Your task to perform on an android device: Open settings Image 0: 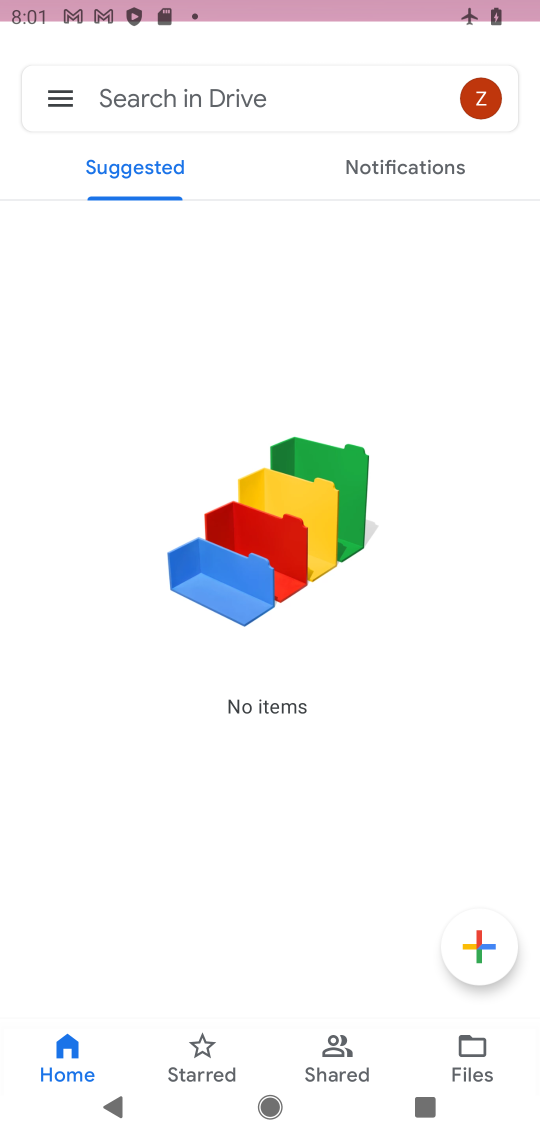
Step 0: press home button
Your task to perform on an android device: Open settings Image 1: 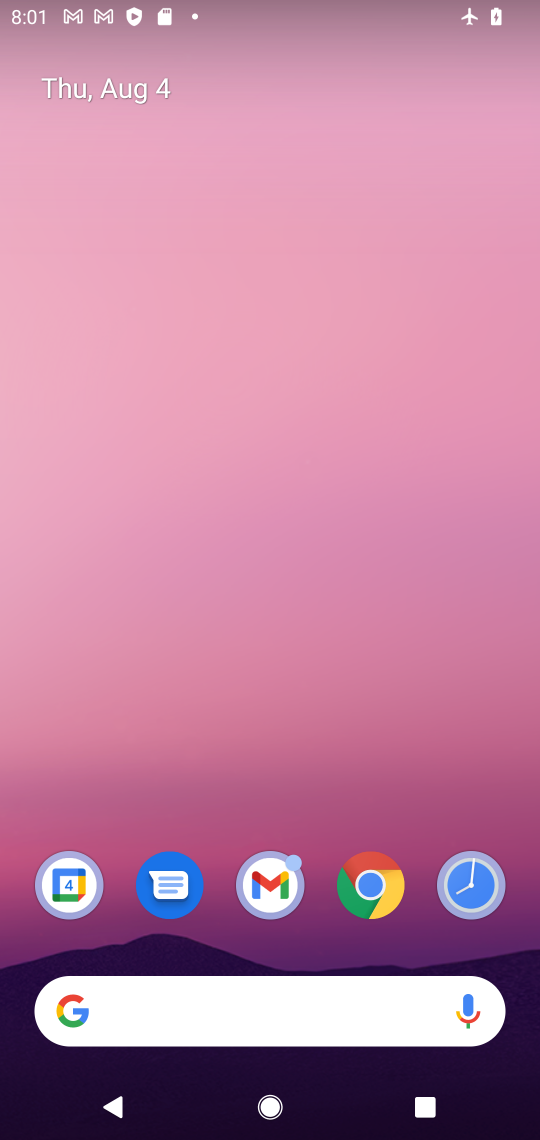
Step 1: drag from (453, 729) to (329, 0)
Your task to perform on an android device: Open settings Image 2: 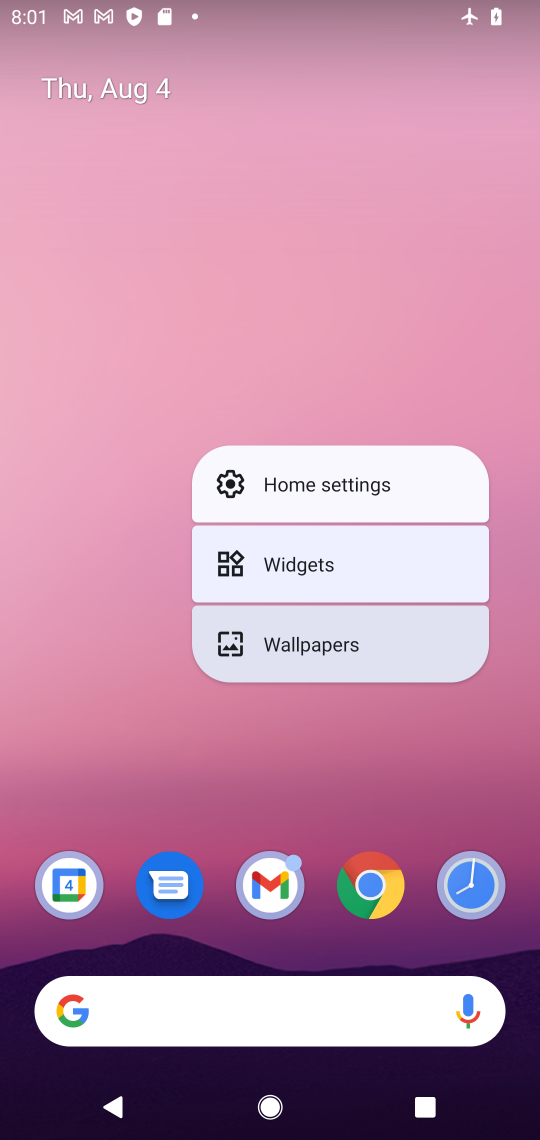
Step 2: click (217, 757)
Your task to perform on an android device: Open settings Image 3: 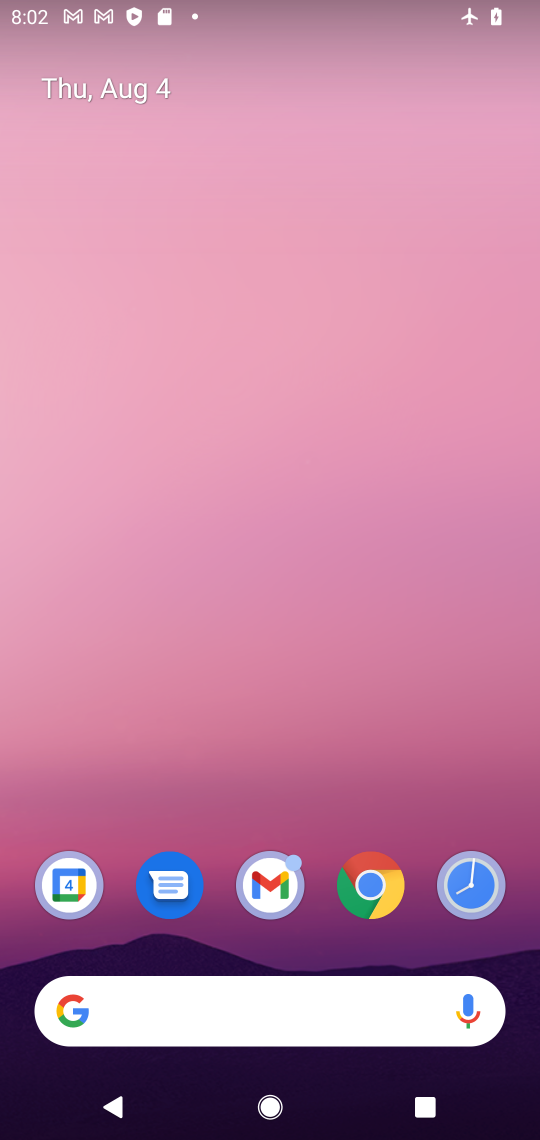
Step 3: drag from (239, 765) to (220, 0)
Your task to perform on an android device: Open settings Image 4: 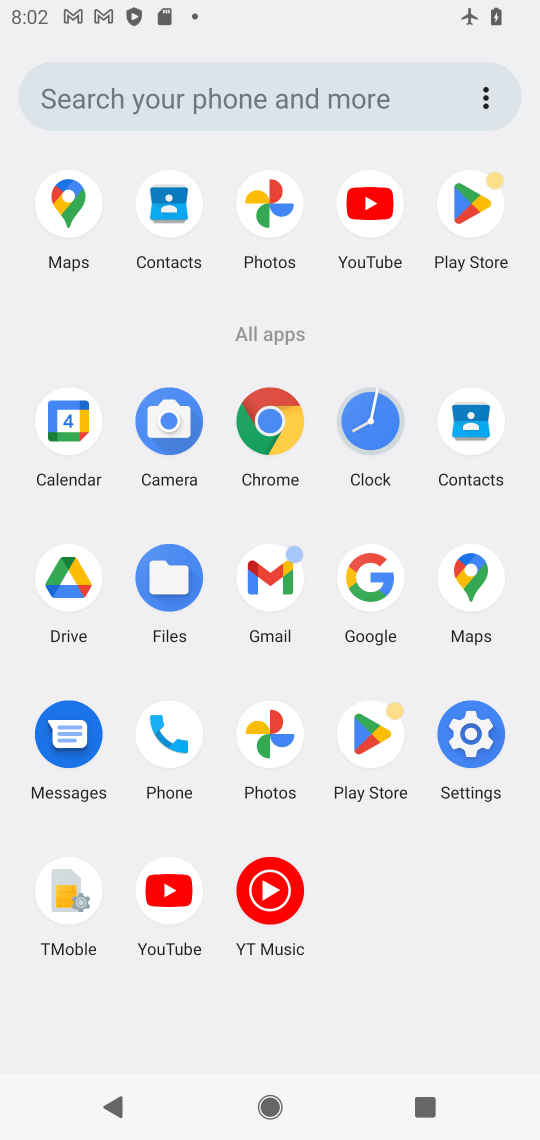
Step 4: click (487, 724)
Your task to perform on an android device: Open settings Image 5: 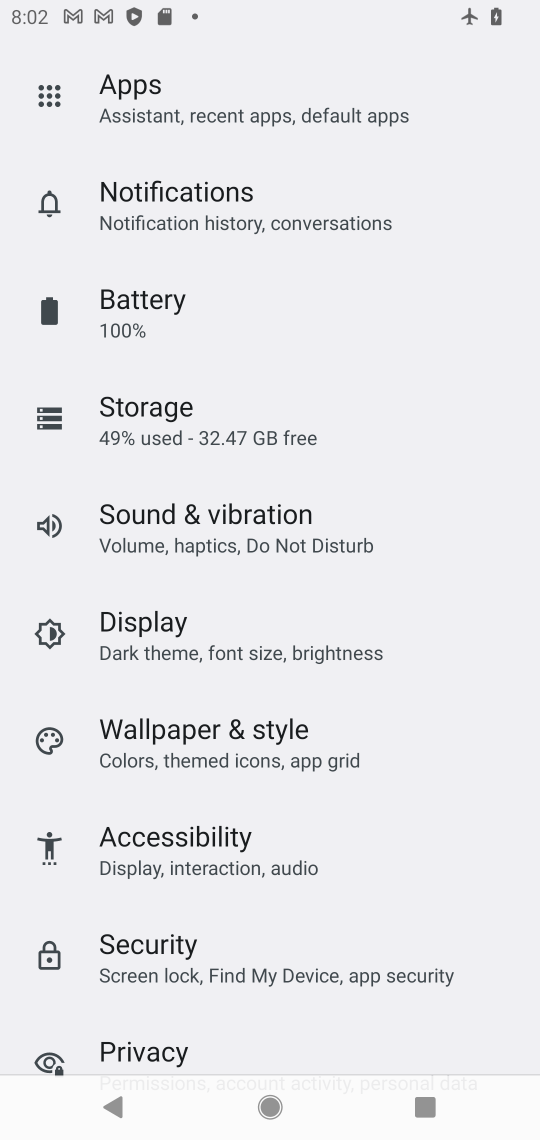
Step 5: task complete